Your task to perform on an android device: open a bookmark in the chrome app Image 0: 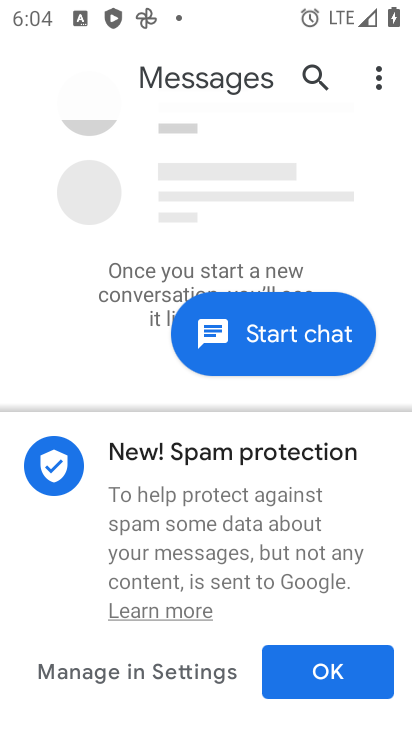
Step 0: press home button
Your task to perform on an android device: open a bookmark in the chrome app Image 1: 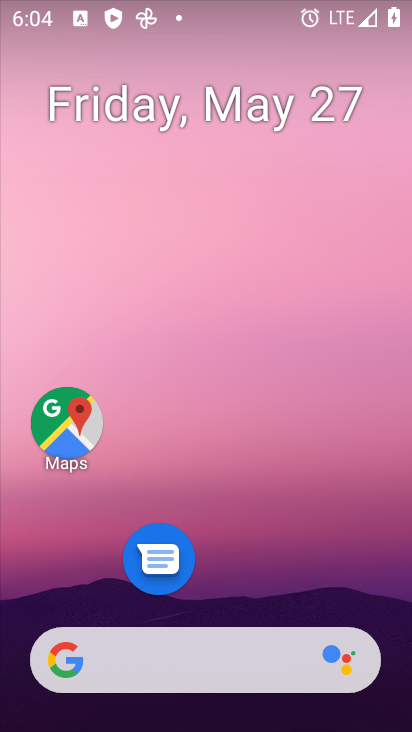
Step 1: drag from (299, 648) to (411, 116)
Your task to perform on an android device: open a bookmark in the chrome app Image 2: 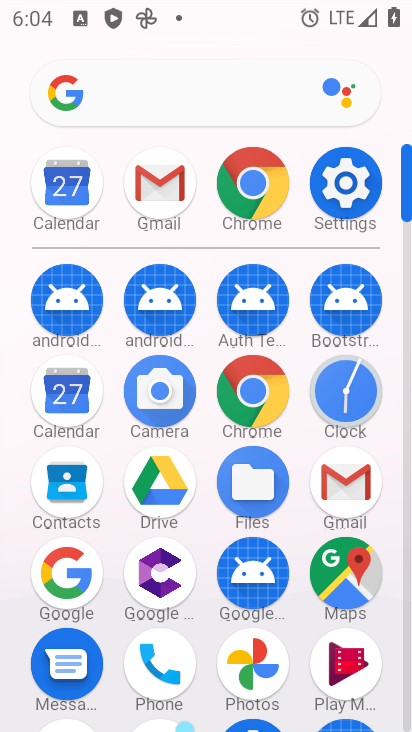
Step 2: click (247, 402)
Your task to perform on an android device: open a bookmark in the chrome app Image 3: 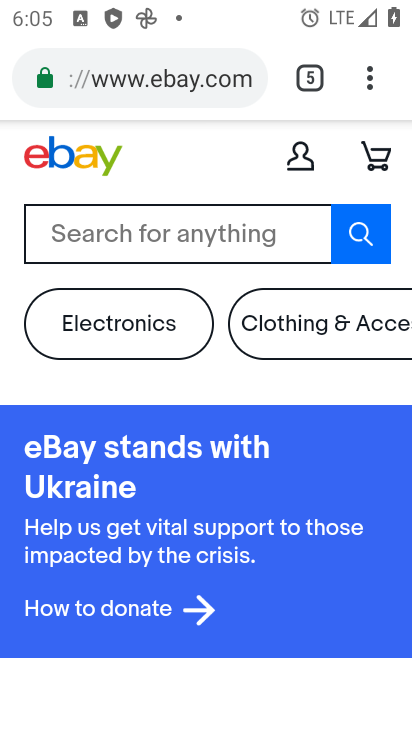
Step 3: task complete